Your task to perform on an android device: What is the news today? Image 0: 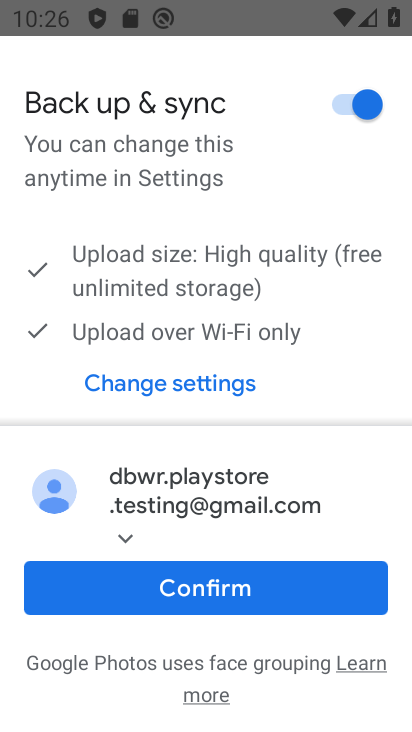
Step 0: press home button
Your task to perform on an android device: What is the news today? Image 1: 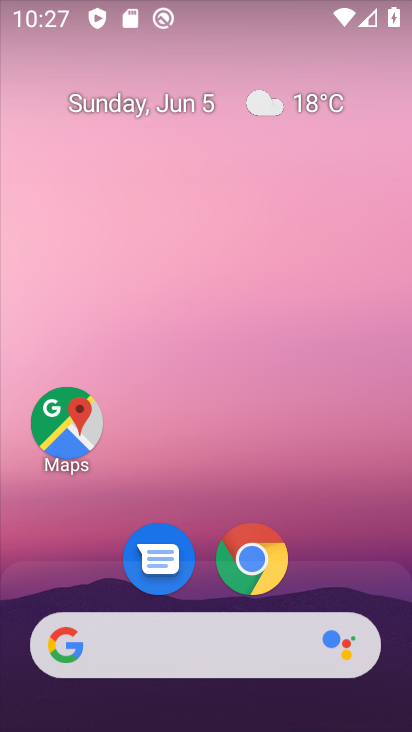
Step 1: click (154, 680)
Your task to perform on an android device: What is the news today? Image 2: 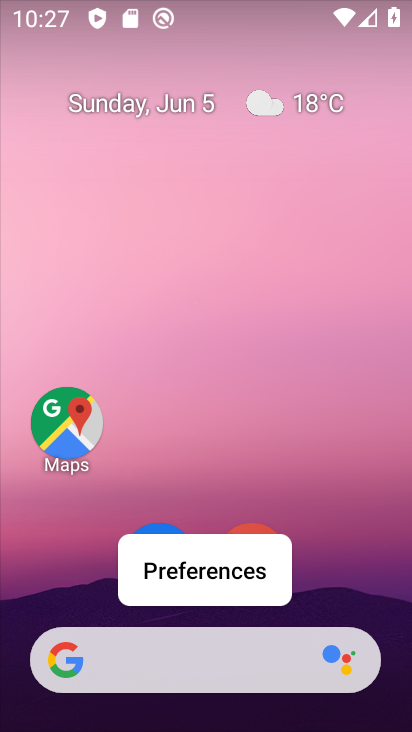
Step 2: click (162, 675)
Your task to perform on an android device: What is the news today? Image 3: 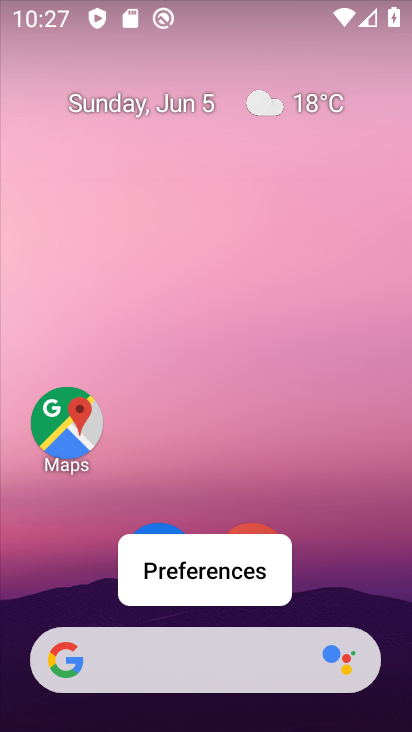
Step 3: click (162, 675)
Your task to perform on an android device: What is the news today? Image 4: 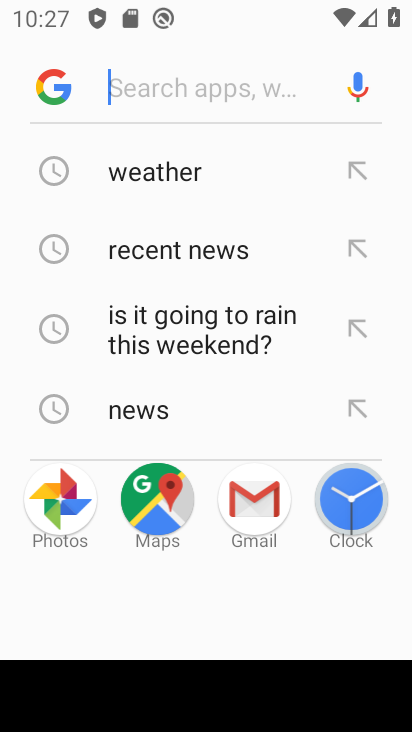
Step 4: click (184, 411)
Your task to perform on an android device: What is the news today? Image 5: 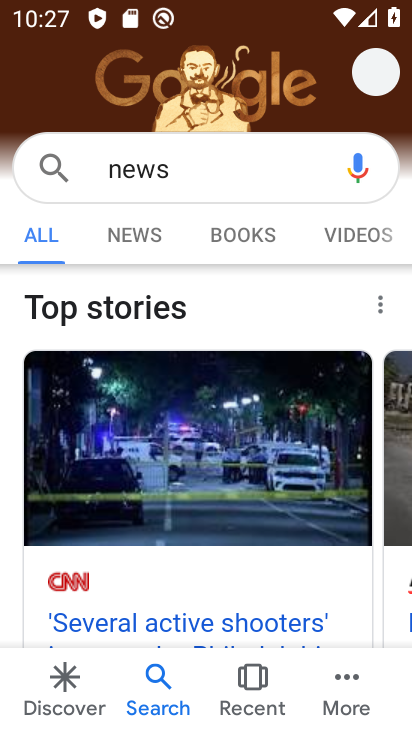
Step 5: task complete